Your task to perform on an android device: Do I have any events tomorrow? Image 0: 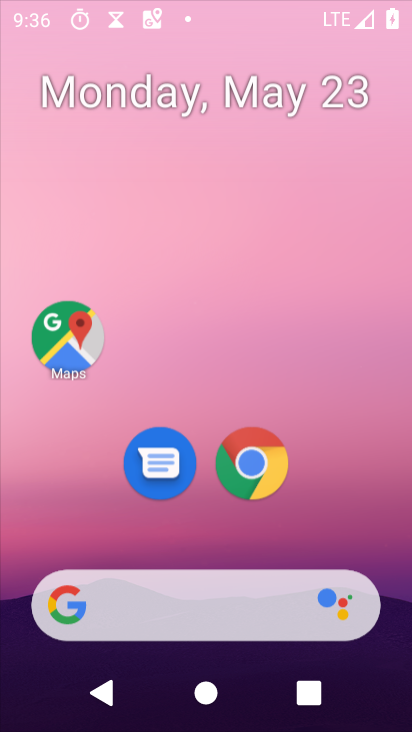
Step 0: click (215, 56)
Your task to perform on an android device: Do I have any events tomorrow? Image 1: 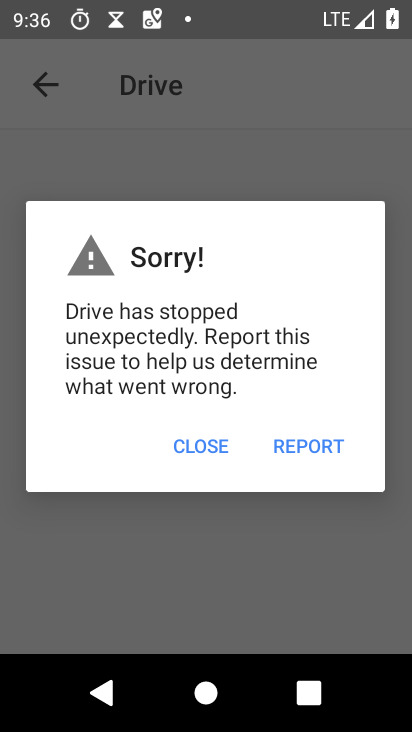
Step 1: press home button
Your task to perform on an android device: Do I have any events tomorrow? Image 2: 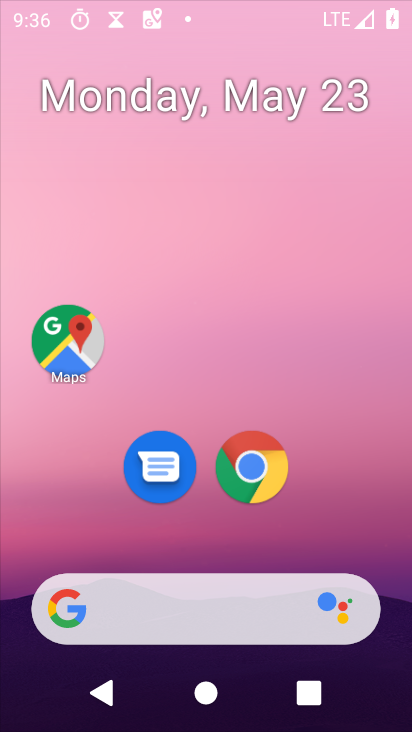
Step 2: drag from (291, 570) to (289, 131)
Your task to perform on an android device: Do I have any events tomorrow? Image 3: 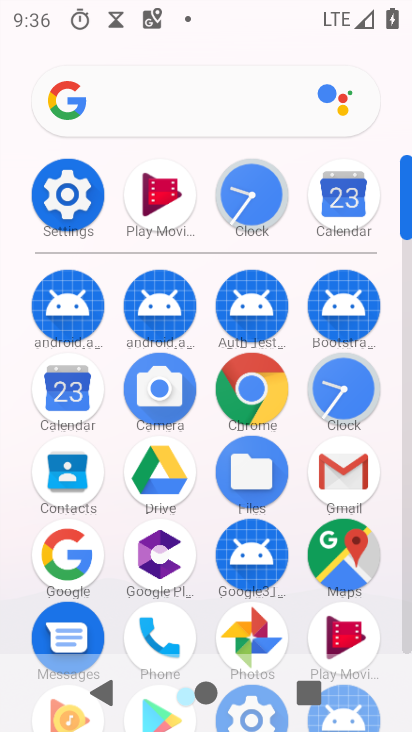
Step 3: click (73, 403)
Your task to perform on an android device: Do I have any events tomorrow? Image 4: 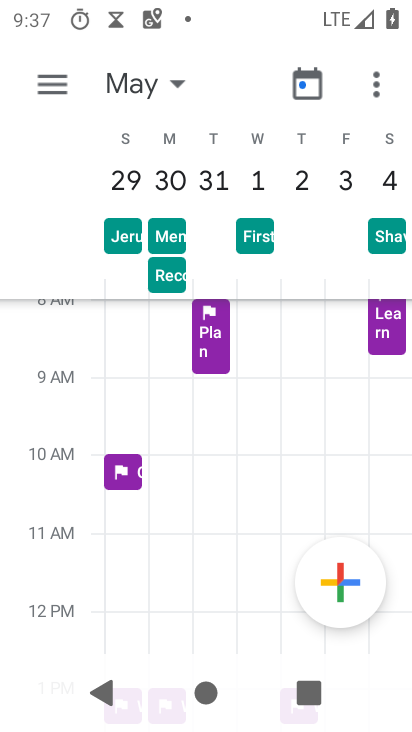
Step 4: task complete